Your task to perform on an android device: turn on wifi Image 0: 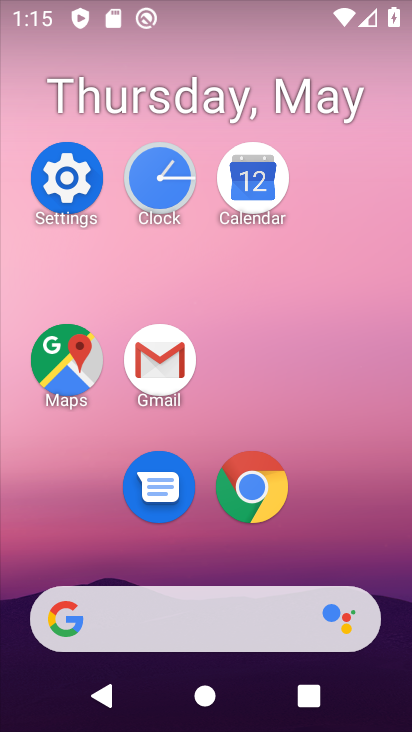
Step 0: click (58, 165)
Your task to perform on an android device: turn on wifi Image 1: 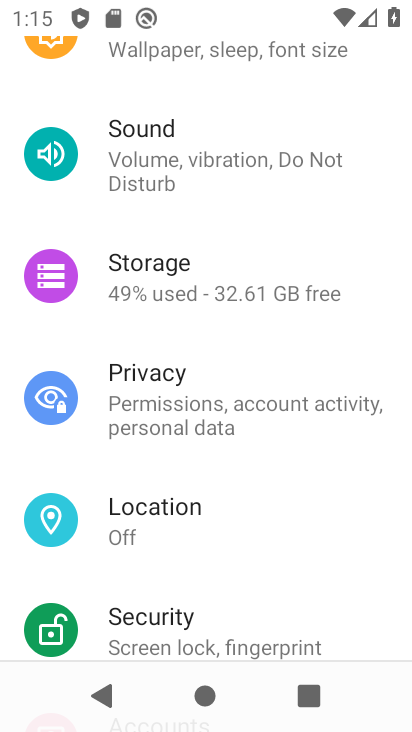
Step 1: drag from (272, 136) to (254, 571)
Your task to perform on an android device: turn on wifi Image 2: 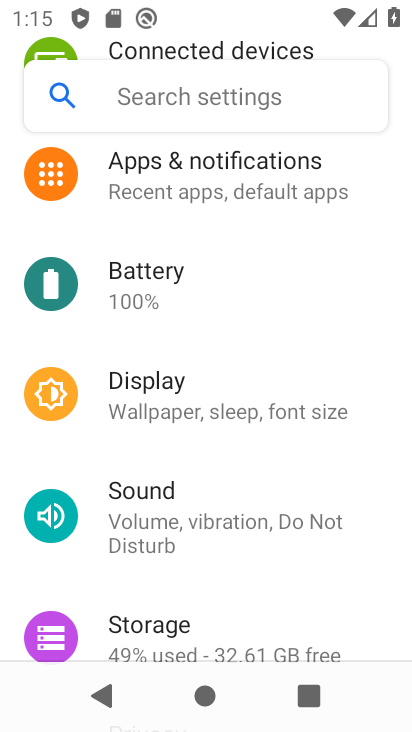
Step 2: drag from (299, 247) to (263, 530)
Your task to perform on an android device: turn on wifi Image 3: 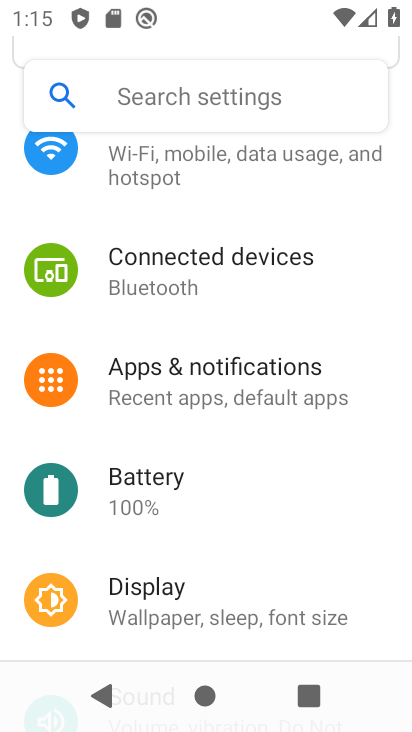
Step 3: click (206, 163)
Your task to perform on an android device: turn on wifi Image 4: 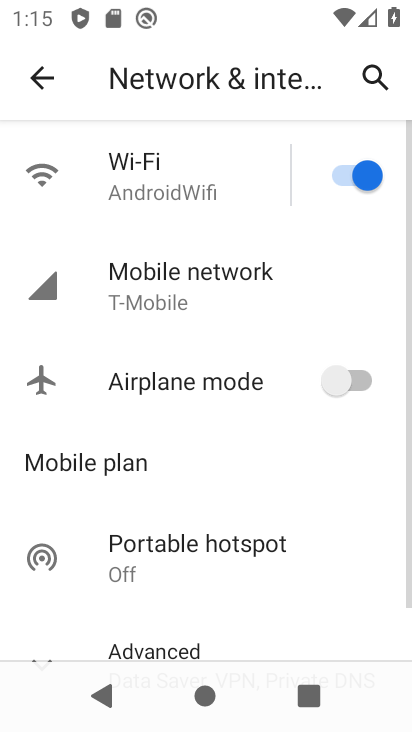
Step 4: task complete